Your task to perform on an android device: What's the weather going to be this weekend? Image 0: 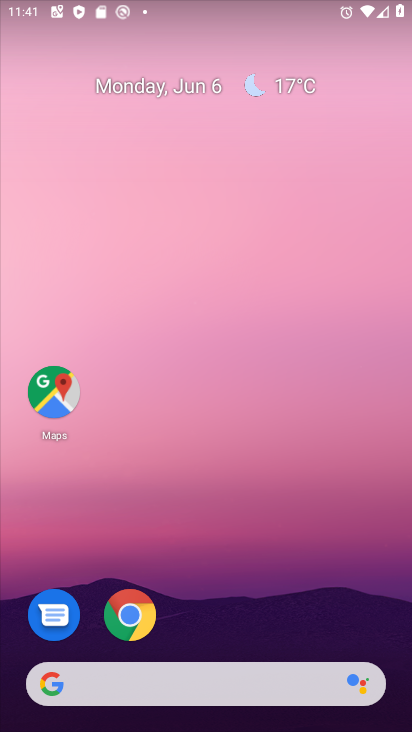
Step 0: press home button
Your task to perform on an android device: What's the weather going to be this weekend? Image 1: 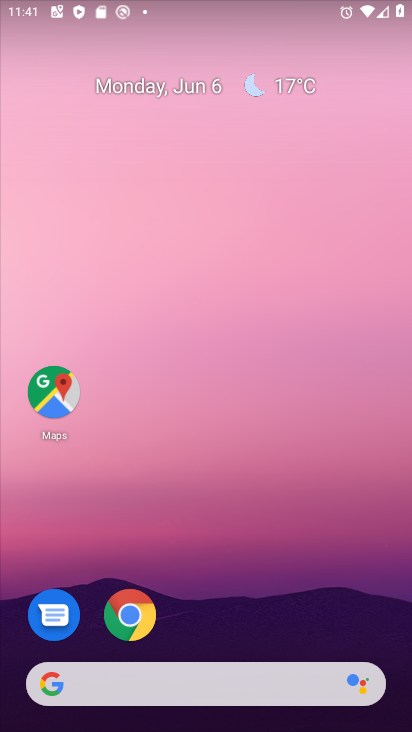
Step 1: drag from (221, 638) to (261, 163)
Your task to perform on an android device: What's the weather going to be this weekend? Image 2: 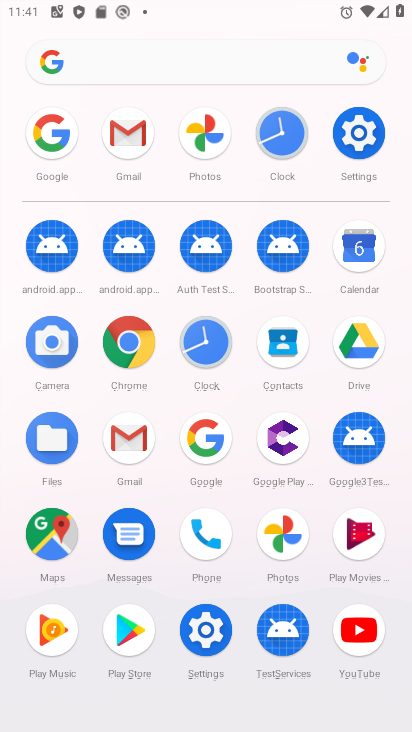
Step 2: press home button
Your task to perform on an android device: What's the weather going to be this weekend? Image 3: 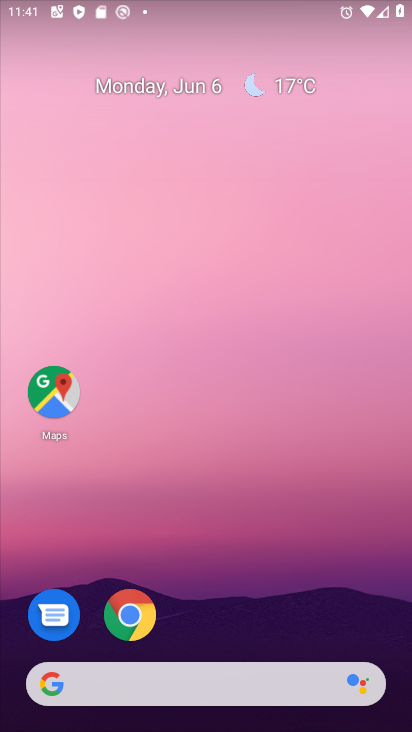
Step 3: click (283, 83)
Your task to perform on an android device: What's the weather going to be this weekend? Image 4: 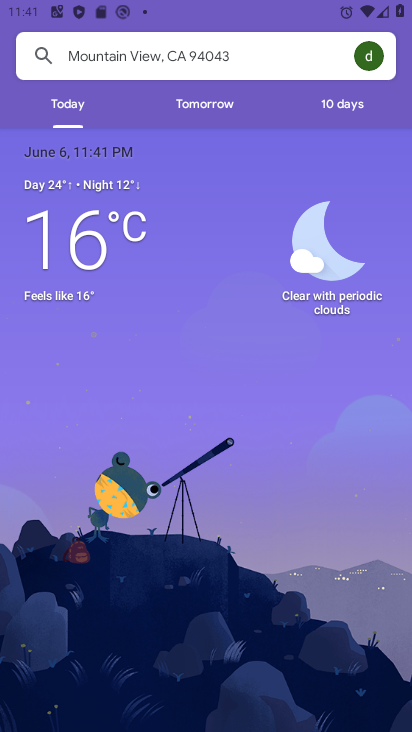
Step 4: click (342, 103)
Your task to perform on an android device: What's the weather going to be this weekend? Image 5: 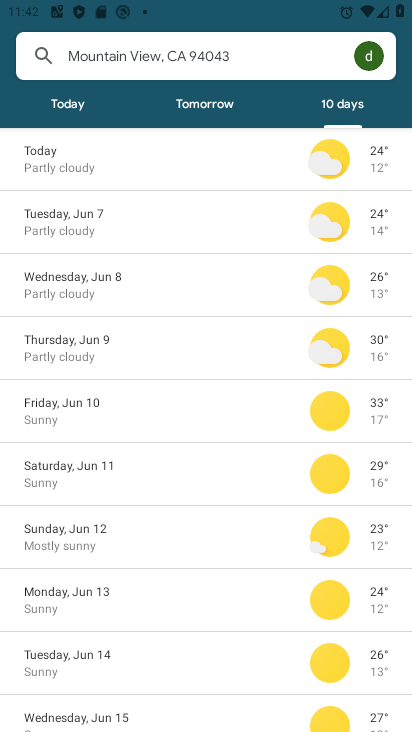
Step 5: task complete